Your task to perform on an android device: find snoozed emails in the gmail app Image 0: 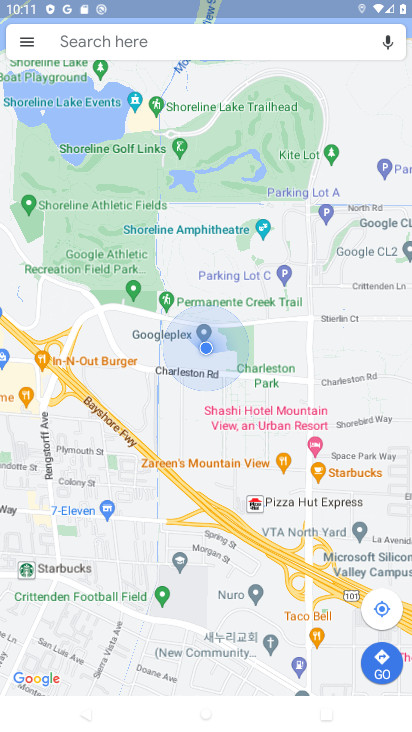
Step 0: press home button
Your task to perform on an android device: find snoozed emails in the gmail app Image 1: 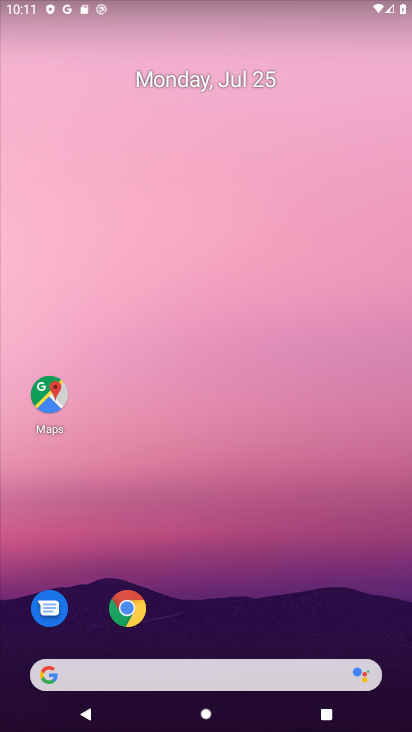
Step 1: drag from (143, 635) to (183, 170)
Your task to perform on an android device: find snoozed emails in the gmail app Image 2: 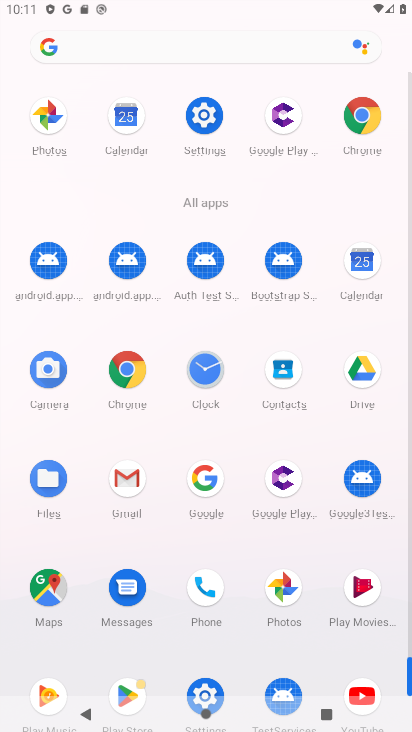
Step 2: click (118, 479)
Your task to perform on an android device: find snoozed emails in the gmail app Image 3: 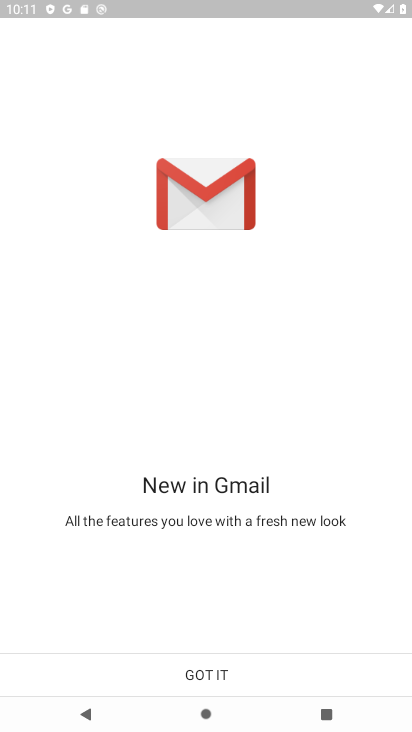
Step 3: click (195, 676)
Your task to perform on an android device: find snoozed emails in the gmail app Image 4: 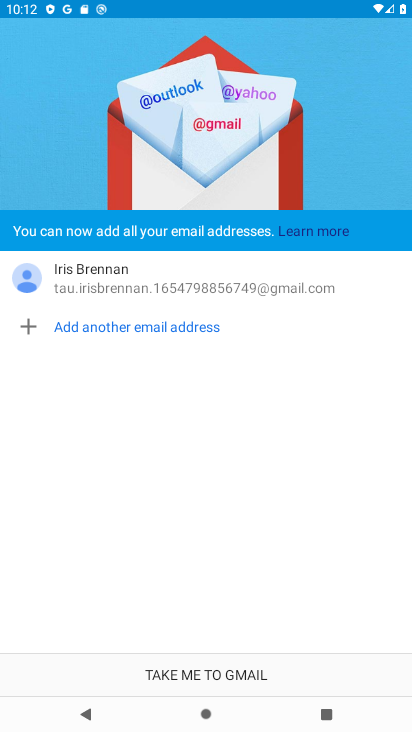
Step 4: click (177, 677)
Your task to perform on an android device: find snoozed emails in the gmail app Image 5: 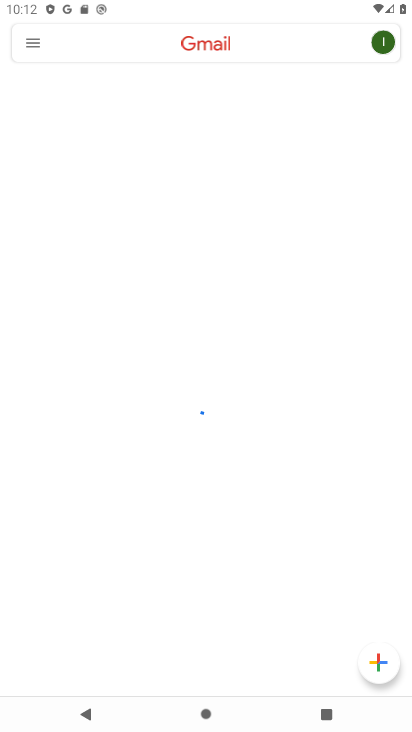
Step 5: click (29, 37)
Your task to perform on an android device: find snoozed emails in the gmail app Image 6: 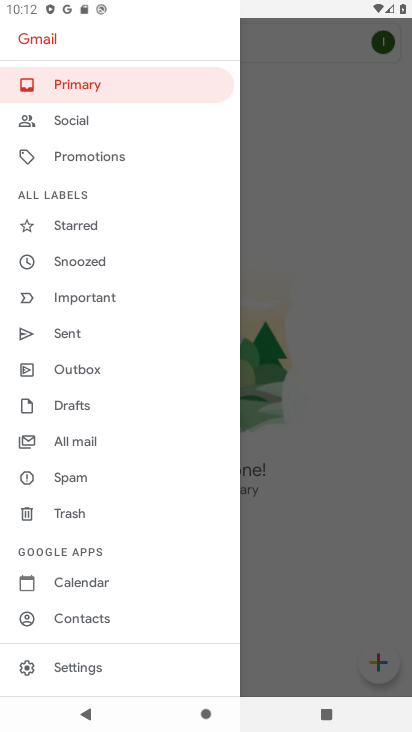
Step 6: click (93, 260)
Your task to perform on an android device: find snoozed emails in the gmail app Image 7: 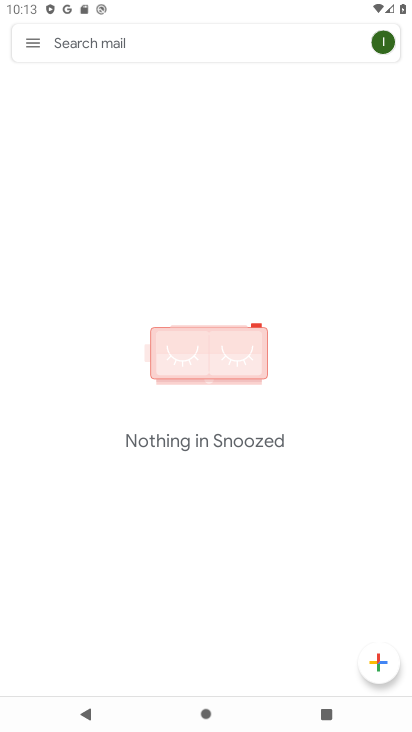
Step 7: task complete